Your task to perform on an android device: Search for Mexican restaurants on Maps Image 0: 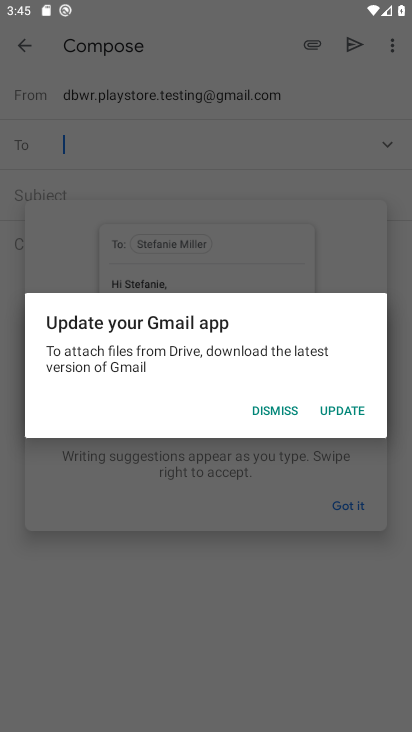
Step 0: press home button
Your task to perform on an android device: Search for Mexican restaurants on Maps Image 1: 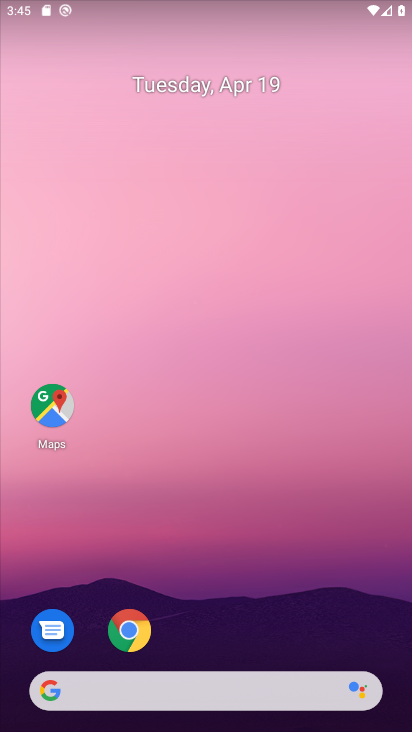
Step 1: click (48, 424)
Your task to perform on an android device: Search for Mexican restaurants on Maps Image 2: 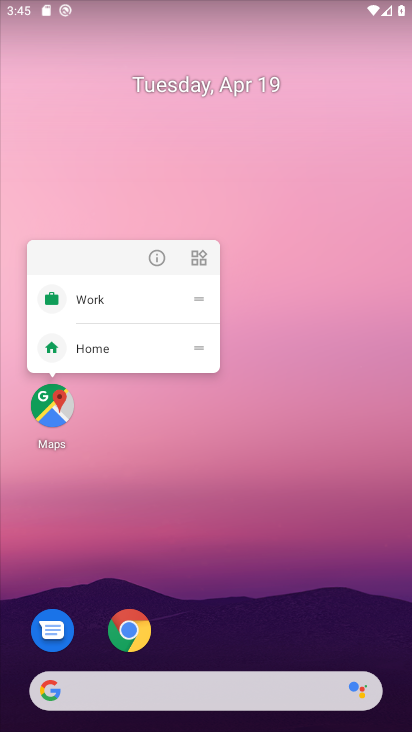
Step 2: click (57, 408)
Your task to perform on an android device: Search for Mexican restaurants on Maps Image 3: 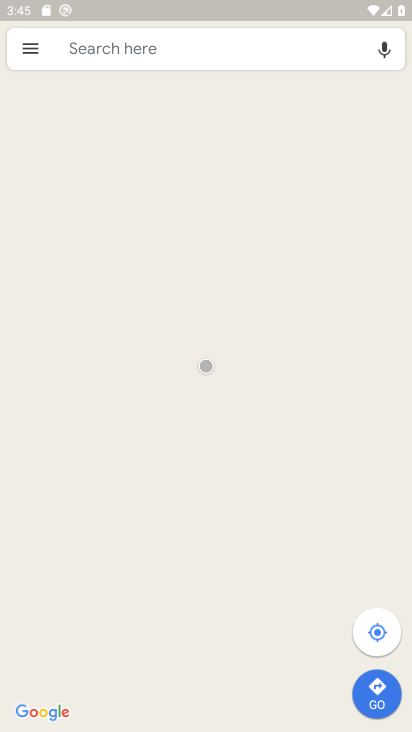
Step 3: click (126, 50)
Your task to perform on an android device: Search for Mexican restaurants on Maps Image 4: 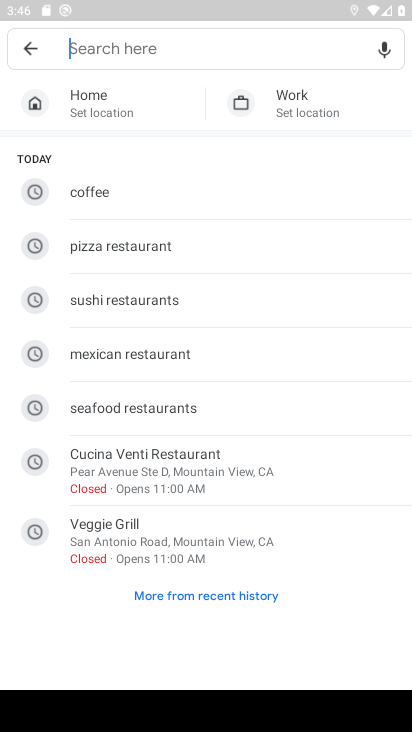
Step 4: type "mexican rest"
Your task to perform on an android device: Search for Mexican restaurants on Maps Image 5: 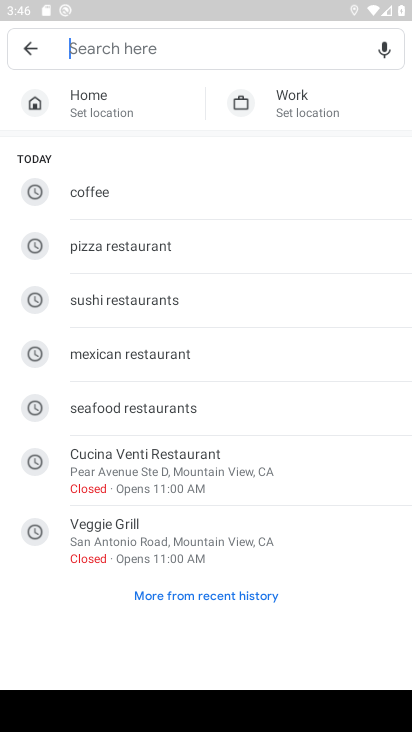
Step 5: click (133, 348)
Your task to perform on an android device: Search for Mexican restaurants on Maps Image 6: 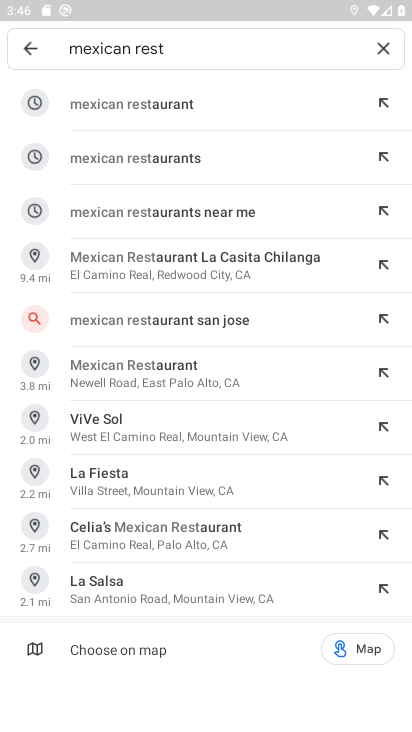
Step 6: click (163, 108)
Your task to perform on an android device: Search for Mexican restaurants on Maps Image 7: 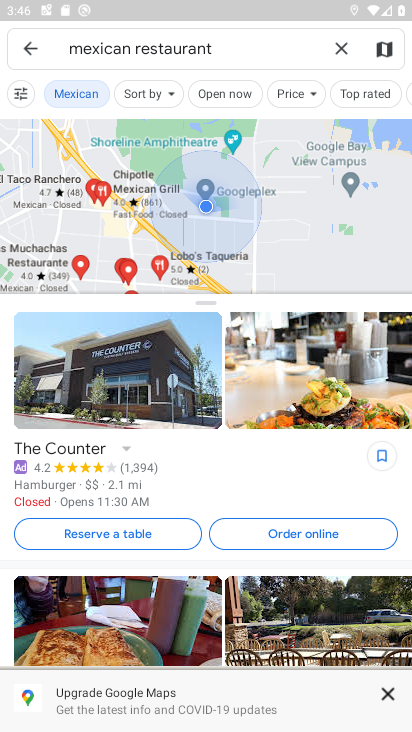
Step 7: task complete